Your task to perform on an android device: make emails show in primary in the gmail app Image 0: 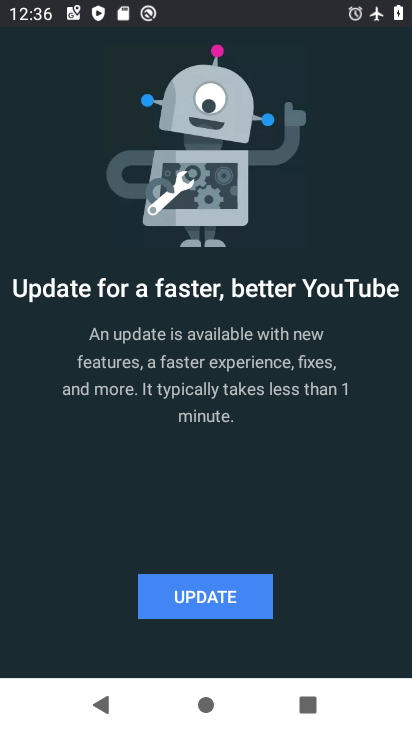
Step 0: press home button
Your task to perform on an android device: make emails show in primary in the gmail app Image 1: 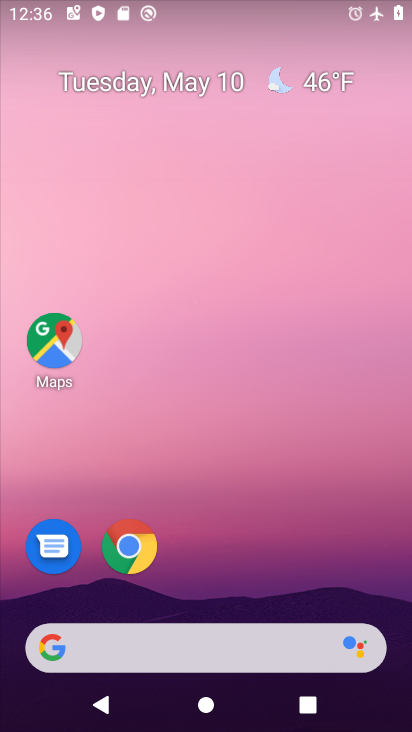
Step 1: drag from (364, 609) to (294, 10)
Your task to perform on an android device: make emails show in primary in the gmail app Image 2: 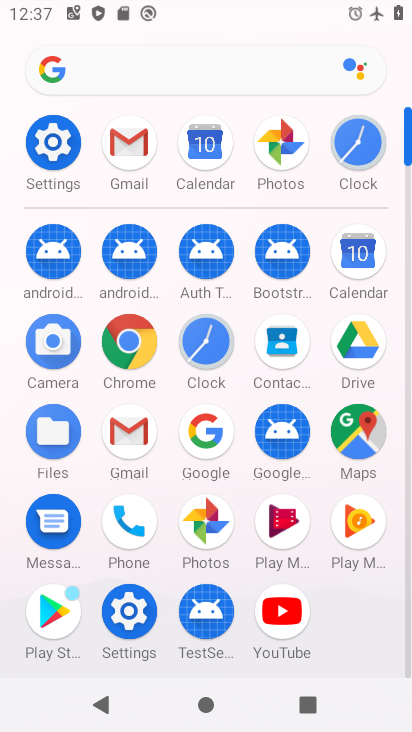
Step 2: click (126, 152)
Your task to perform on an android device: make emails show in primary in the gmail app Image 3: 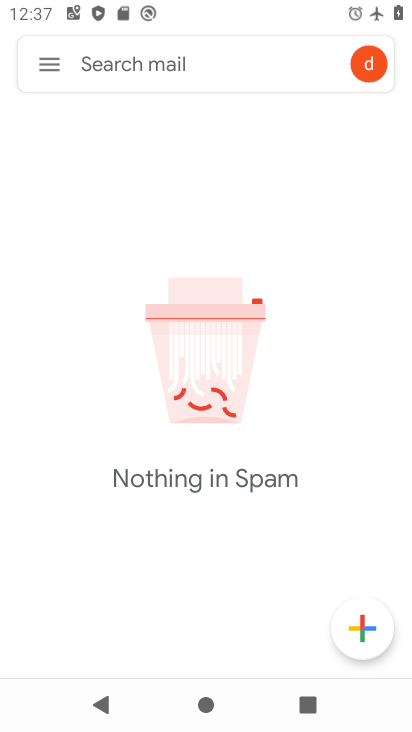
Step 3: click (47, 68)
Your task to perform on an android device: make emails show in primary in the gmail app Image 4: 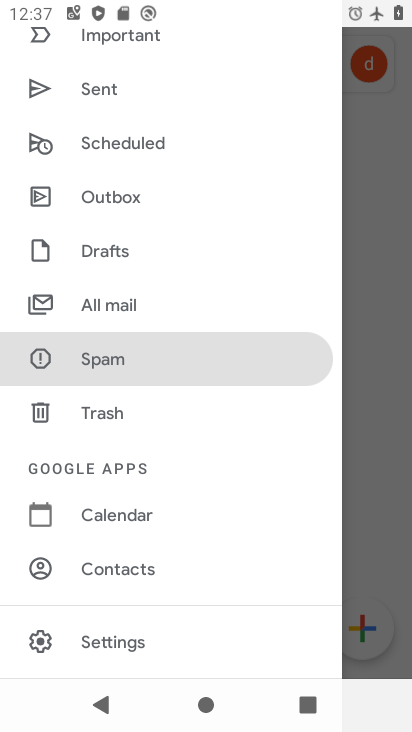
Step 4: click (124, 645)
Your task to perform on an android device: make emails show in primary in the gmail app Image 5: 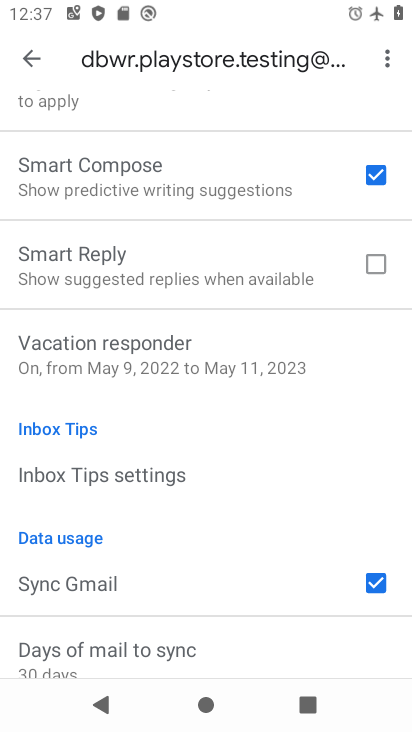
Step 5: task complete